Your task to perform on an android device: Go to wifi settings Image 0: 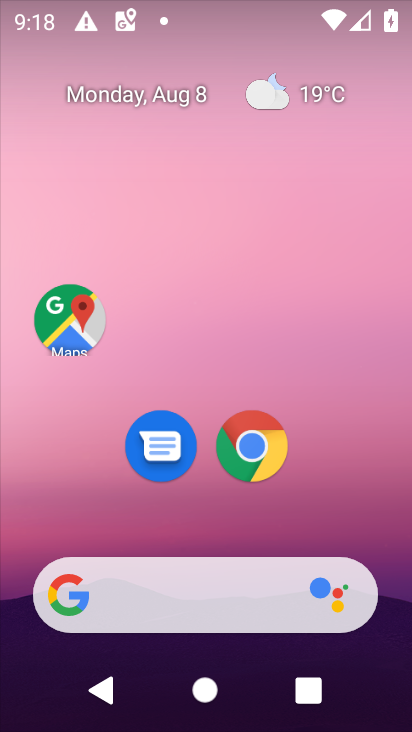
Step 0: drag from (375, 531) to (399, 169)
Your task to perform on an android device: Go to wifi settings Image 1: 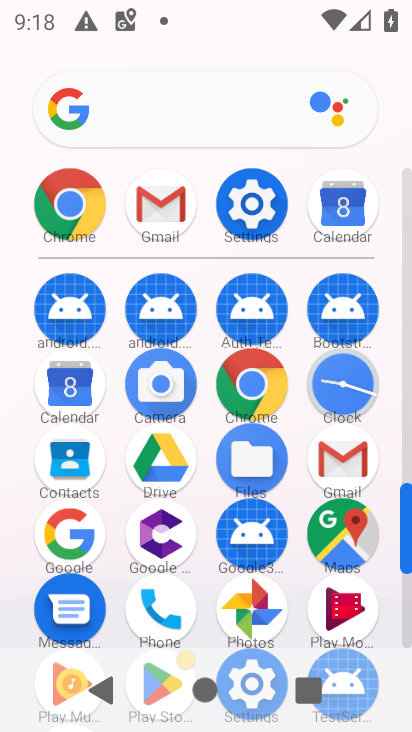
Step 1: click (405, 620)
Your task to perform on an android device: Go to wifi settings Image 2: 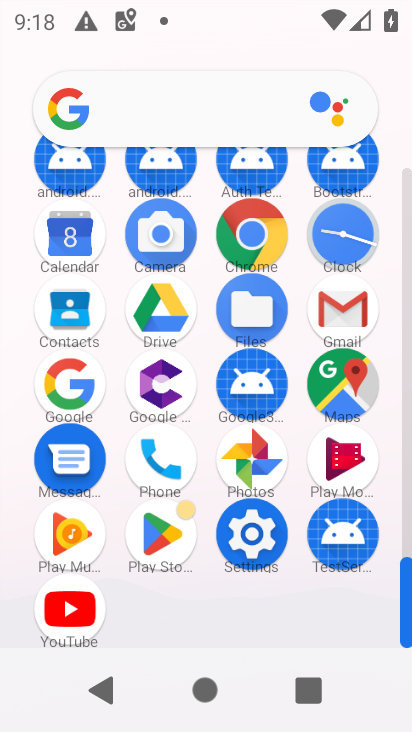
Step 2: click (251, 534)
Your task to perform on an android device: Go to wifi settings Image 3: 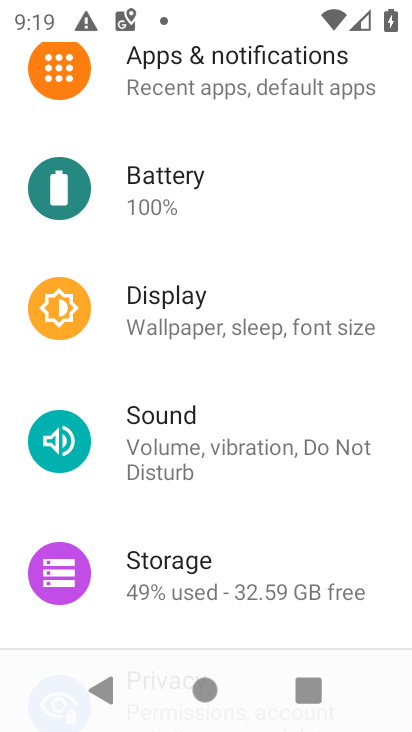
Step 3: drag from (364, 165) to (353, 371)
Your task to perform on an android device: Go to wifi settings Image 4: 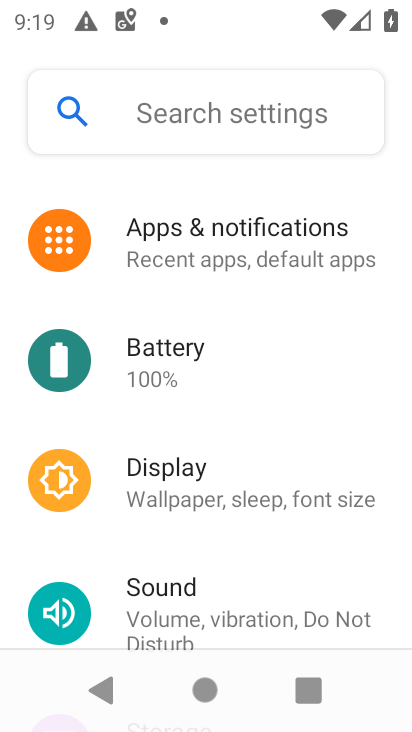
Step 4: drag from (283, 201) to (270, 461)
Your task to perform on an android device: Go to wifi settings Image 5: 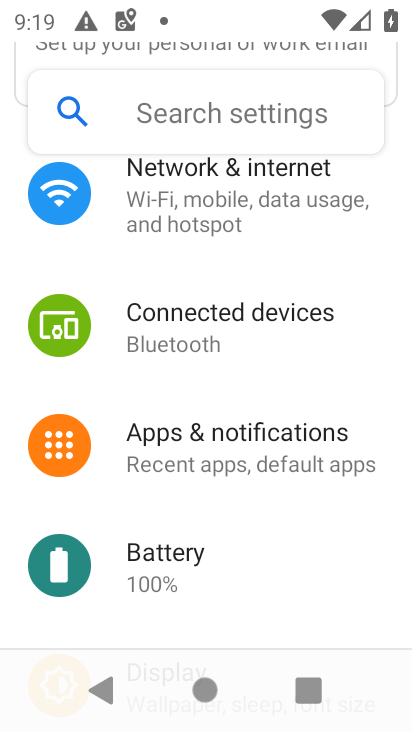
Step 5: click (181, 183)
Your task to perform on an android device: Go to wifi settings Image 6: 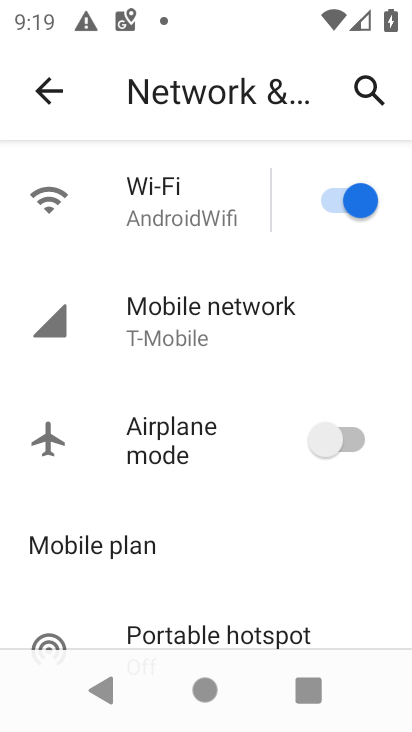
Step 6: click (58, 195)
Your task to perform on an android device: Go to wifi settings Image 7: 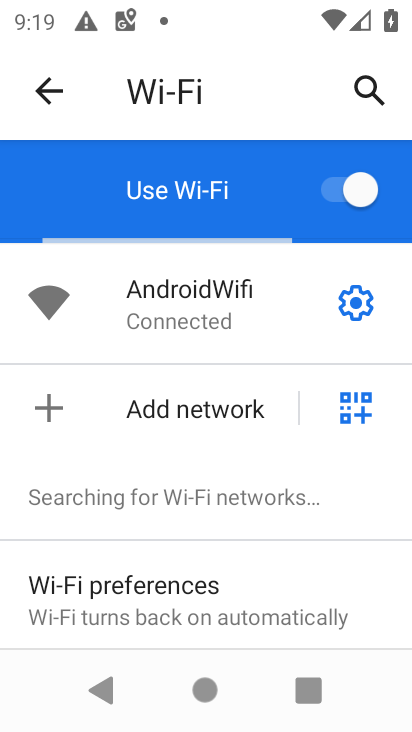
Step 7: click (352, 307)
Your task to perform on an android device: Go to wifi settings Image 8: 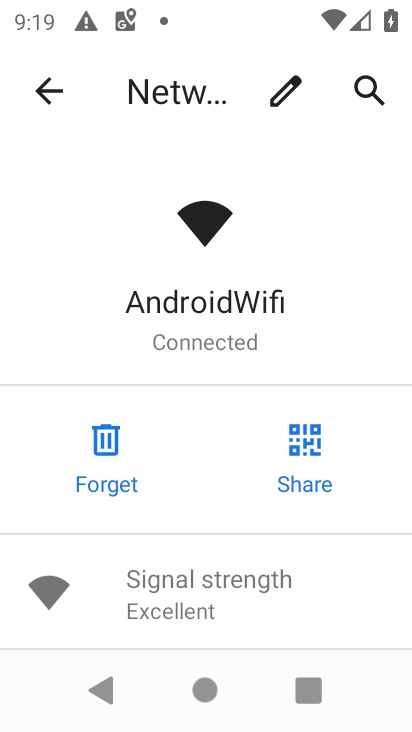
Step 8: task complete